Your task to perform on an android device: Go to accessibility settings Image 0: 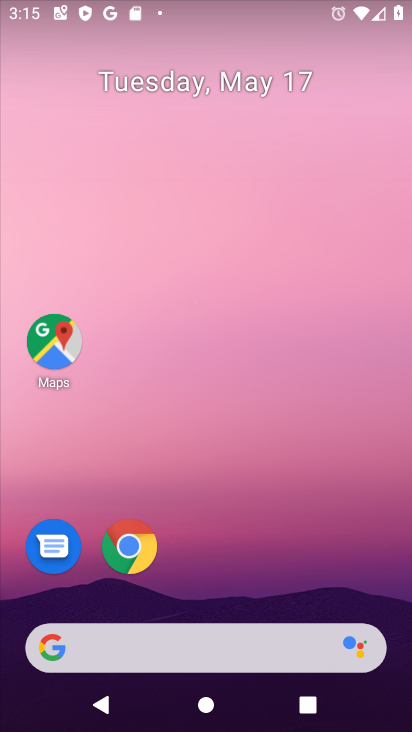
Step 0: drag from (395, 594) to (397, 382)
Your task to perform on an android device: Go to accessibility settings Image 1: 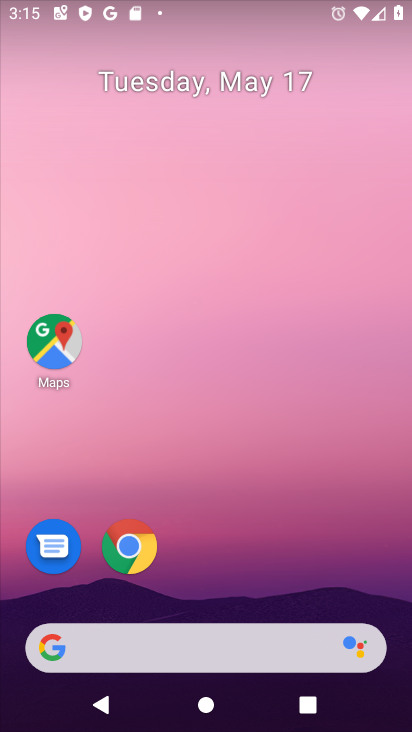
Step 1: drag from (396, 484) to (388, 308)
Your task to perform on an android device: Go to accessibility settings Image 2: 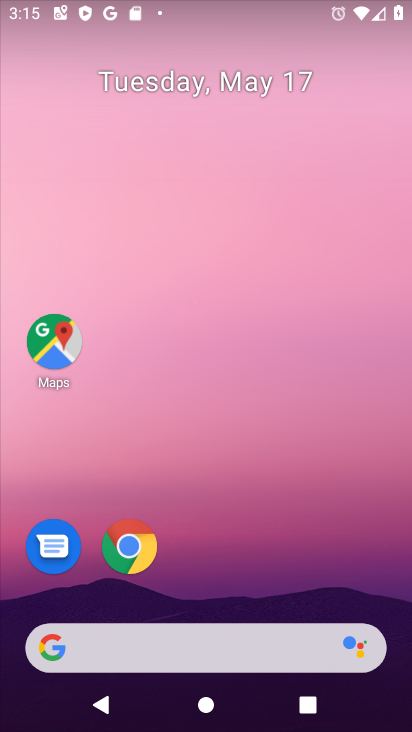
Step 2: drag from (398, 655) to (396, 143)
Your task to perform on an android device: Go to accessibility settings Image 3: 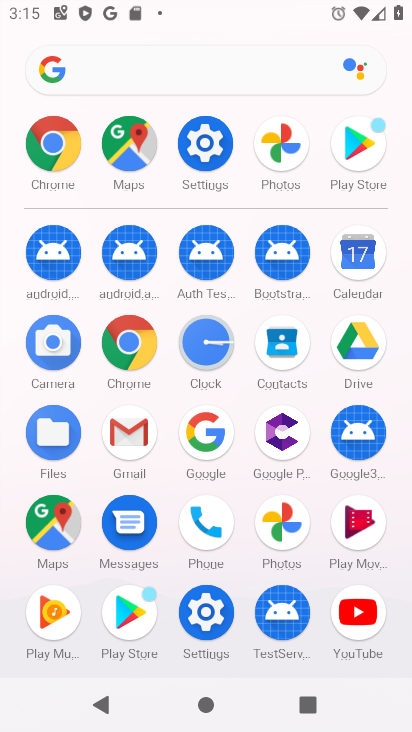
Step 3: click (211, 615)
Your task to perform on an android device: Go to accessibility settings Image 4: 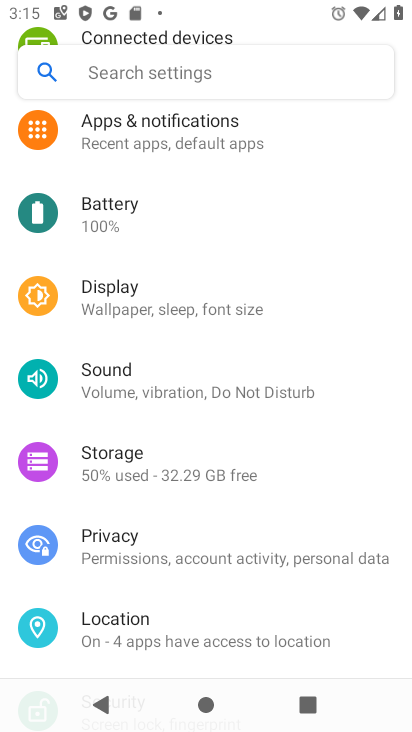
Step 4: drag from (307, 609) to (351, 358)
Your task to perform on an android device: Go to accessibility settings Image 5: 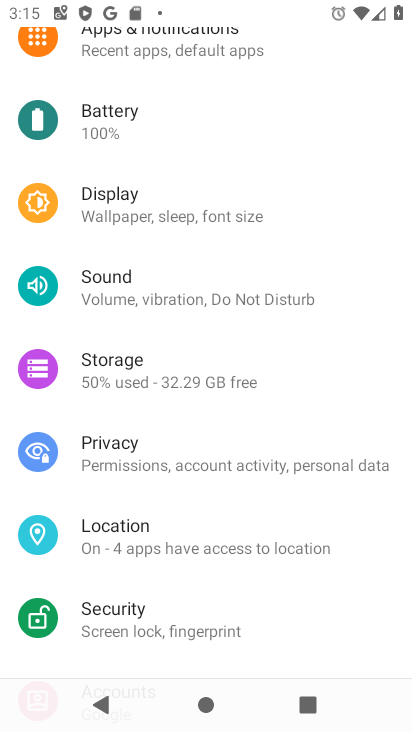
Step 5: drag from (308, 625) to (320, 369)
Your task to perform on an android device: Go to accessibility settings Image 6: 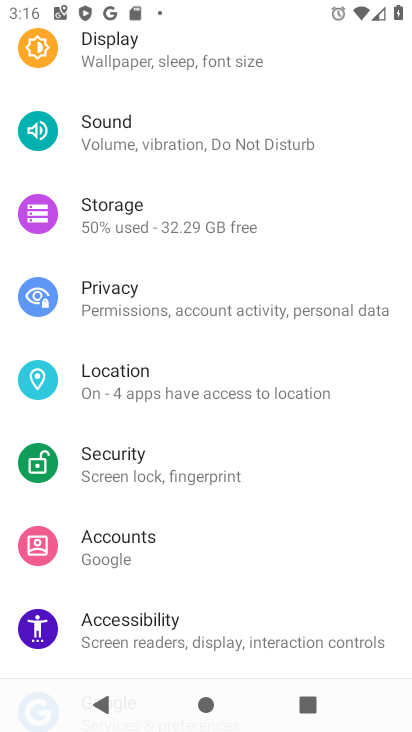
Step 6: click (147, 631)
Your task to perform on an android device: Go to accessibility settings Image 7: 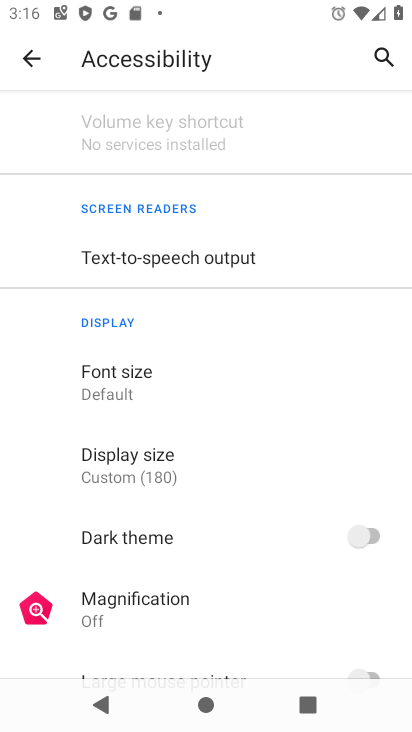
Step 7: task complete